Your task to perform on an android device: turn off javascript in the chrome app Image 0: 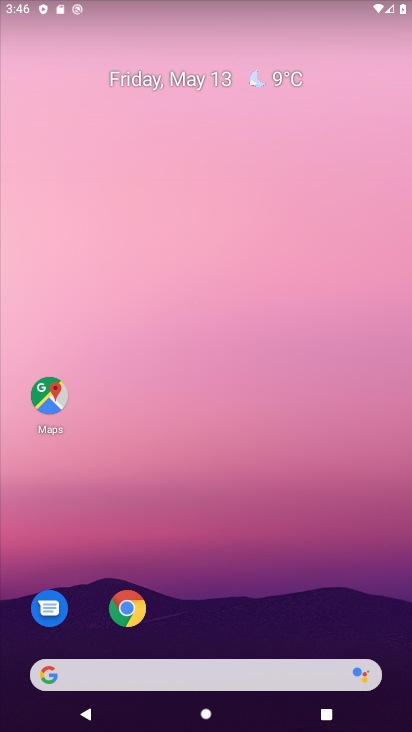
Step 0: click (132, 606)
Your task to perform on an android device: turn off javascript in the chrome app Image 1: 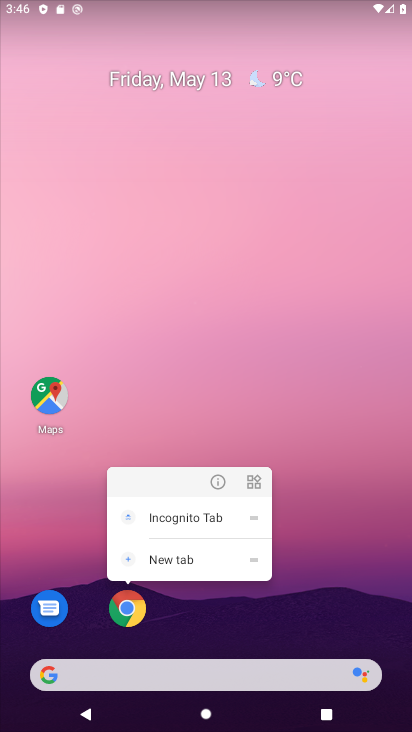
Step 1: click (132, 606)
Your task to perform on an android device: turn off javascript in the chrome app Image 2: 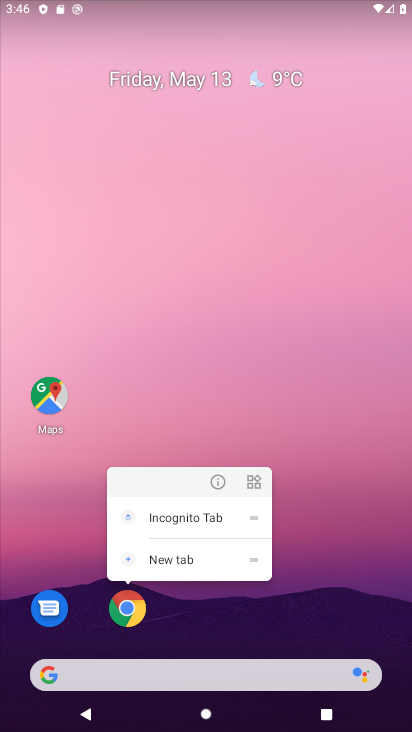
Step 2: click (133, 607)
Your task to perform on an android device: turn off javascript in the chrome app Image 3: 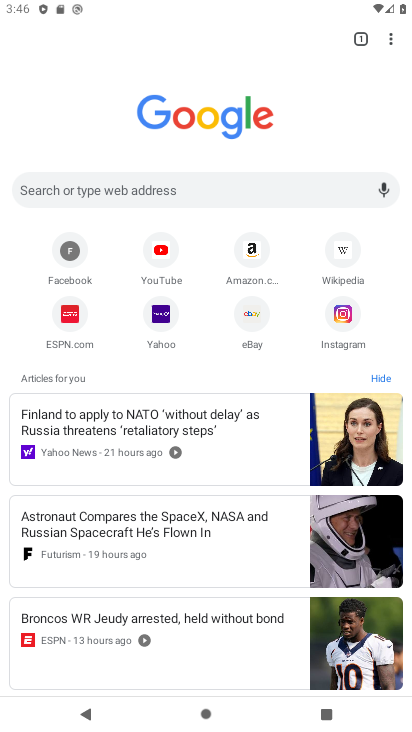
Step 3: click (385, 31)
Your task to perform on an android device: turn off javascript in the chrome app Image 4: 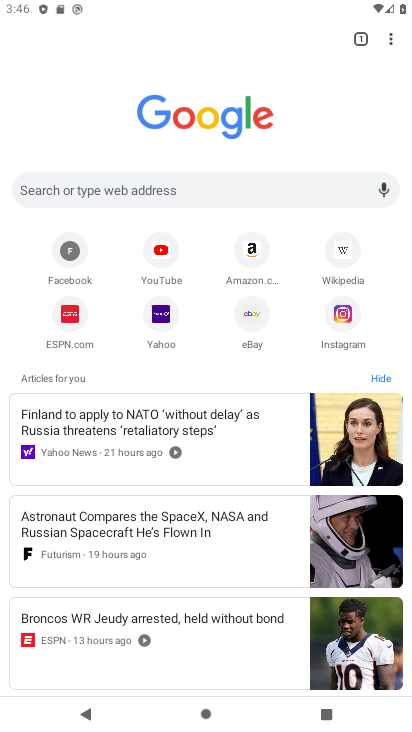
Step 4: click (393, 46)
Your task to perform on an android device: turn off javascript in the chrome app Image 5: 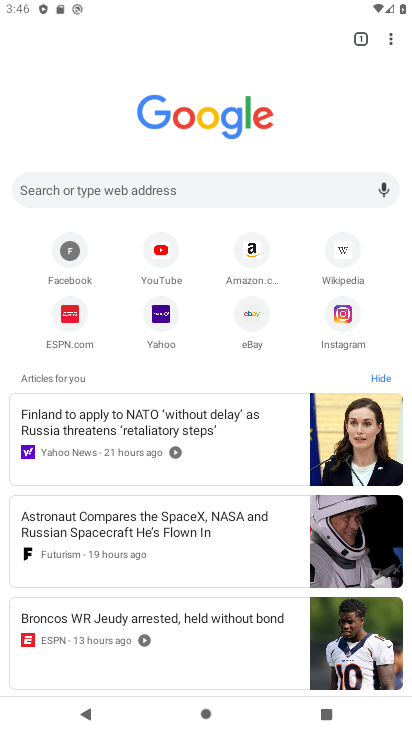
Step 5: click (392, 34)
Your task to perform on an android device: turn off javascript in the chrome app Image 6: 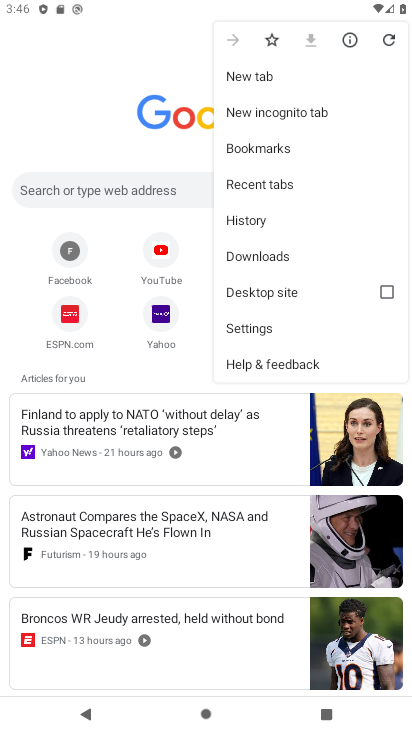
Step 6: click (249, 320)
Your task to perform on an android device: turn off javascript in the chrome app Image 7: 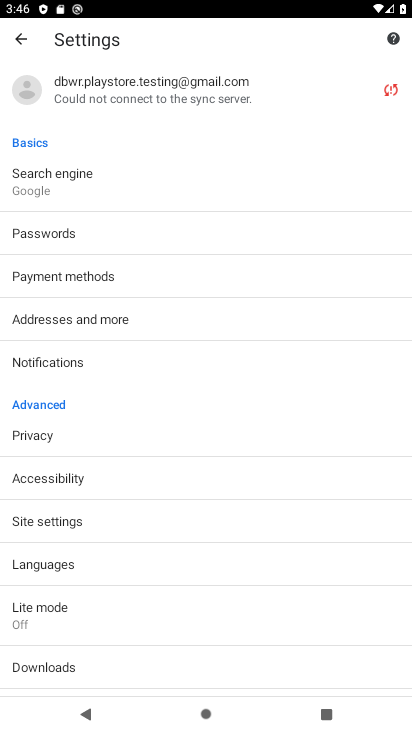
Step 7: click (66, 538)
Your task to perform on an android device: turn off javascript in the chrome app Image 8: 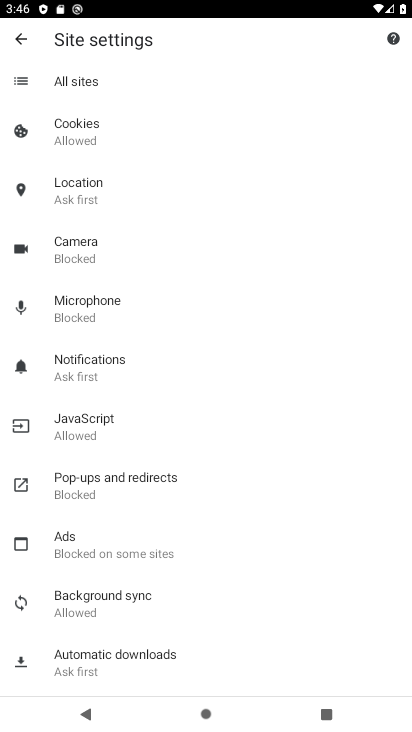
Step 8: click (76, 427)
Your task to perform on an android device: turn off javascript in the chrome app Image 9: 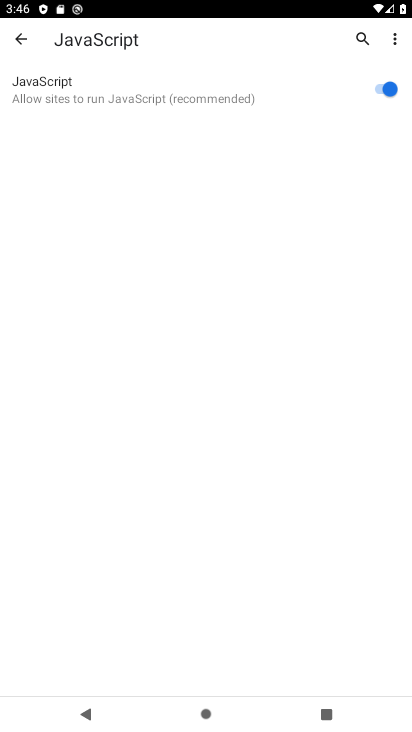
Step 9: click (381, 86)
Your task to perform on an android device: turn off javascript in the chrome app Image 10: 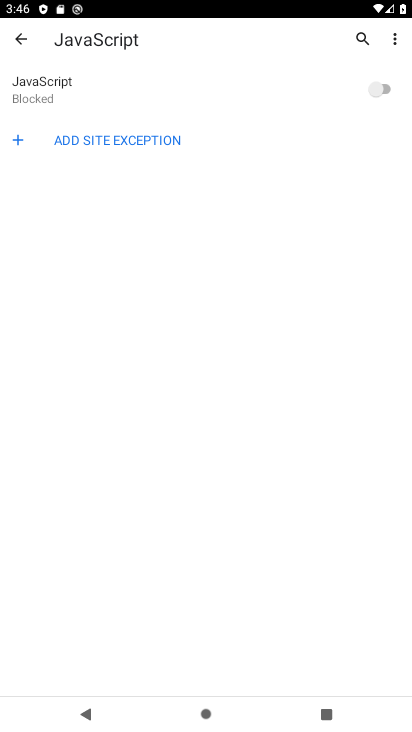
Step 10: task complete